Your task to perform on an android device: Open battery settings Image 0: 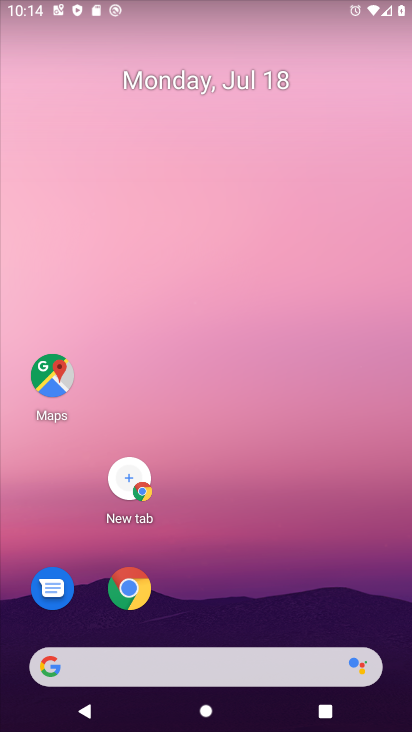
Step 0: drag from (201, 14) to (259, 632)
Your task to perform on an android device: Open battery settings Image 1: 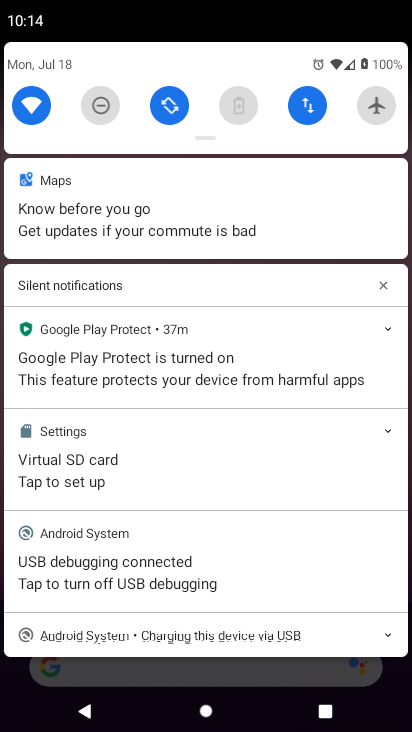
Step 1: click (250, 113)
Your task to perform on an android device: Open battery settings Image 2: 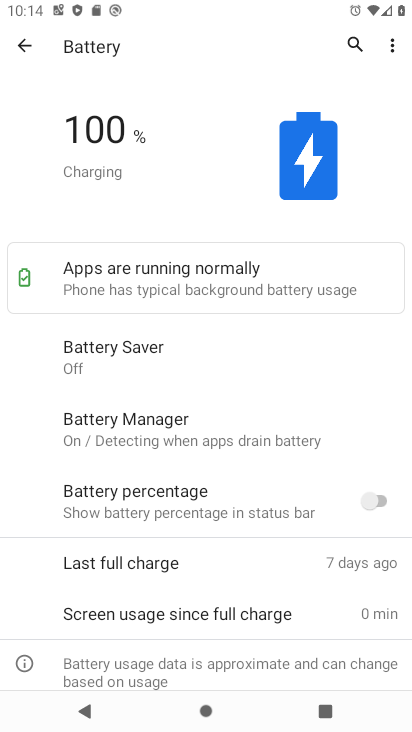
Step 2: task complete